Your task to perform on an android device: turn on priority inbox in the gmail app Image 0: 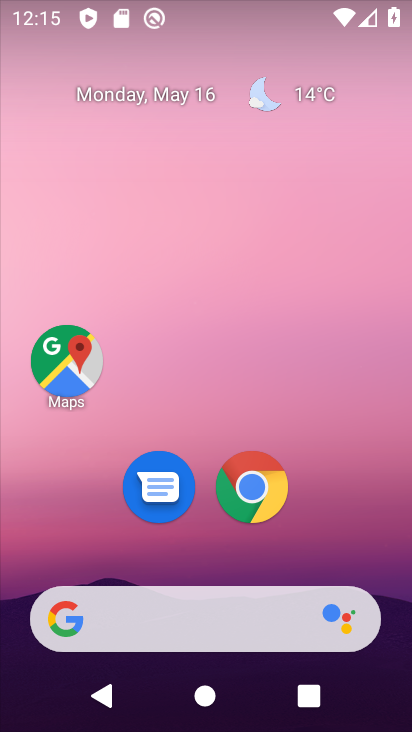
Step 0: press home button
Your task to perform on an android device: turn on priority inbox in the gmail app Image 1: 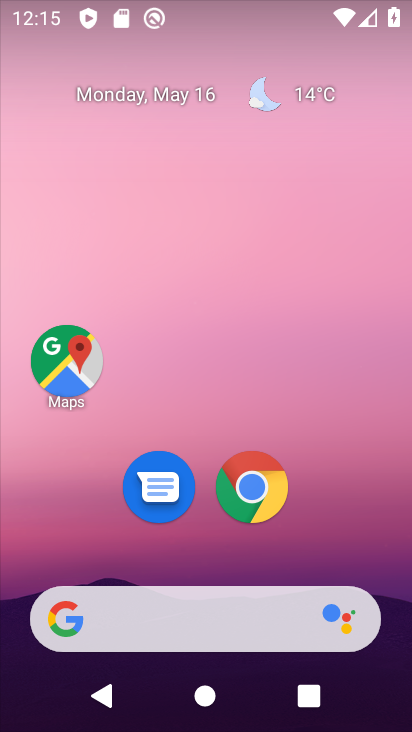
Step 1: drag from (162, 627) to (236, 120)
Your task to perform on an android device: turn on priority inbox in the gmail app Image 2: 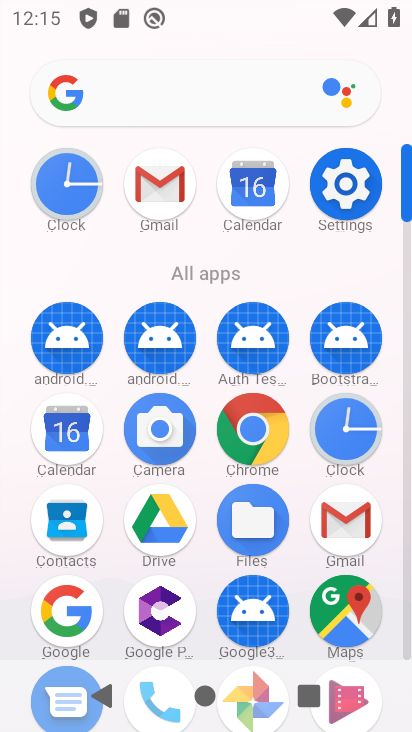
Step 2: click (170, 191)
Your task to perform on an android device: turn on priority inbox in the gmail app Image 3: 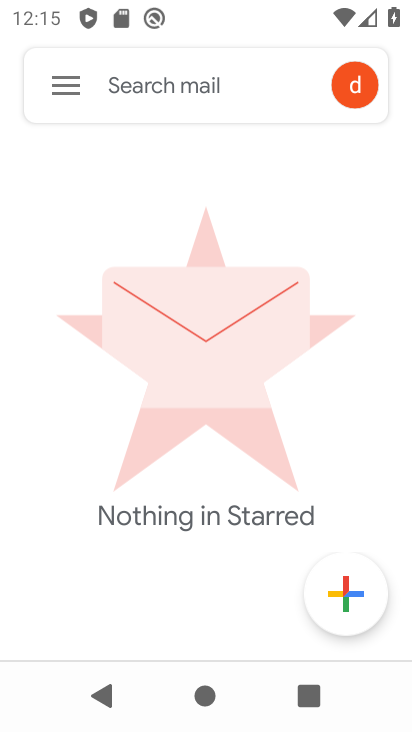
Step 3: click (71, 89)
Your task to perform on an android device: turn on priority inbox in the gmail app Image 4: 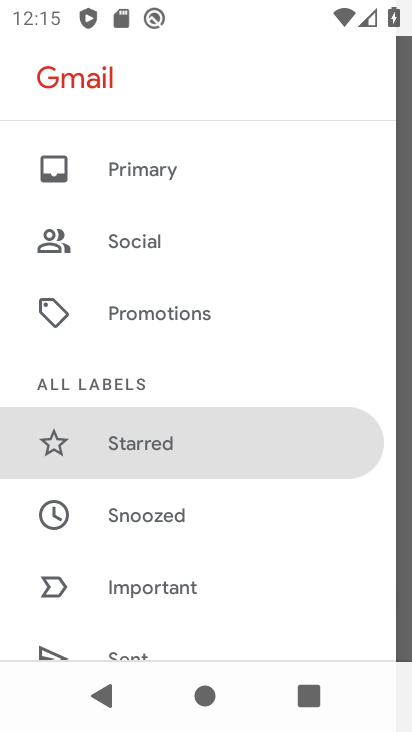
Step 4: drag from (246, 626) to (329, 38)
Your task to perform on an android device: turn on priority inbox in the gmail app Image 5: 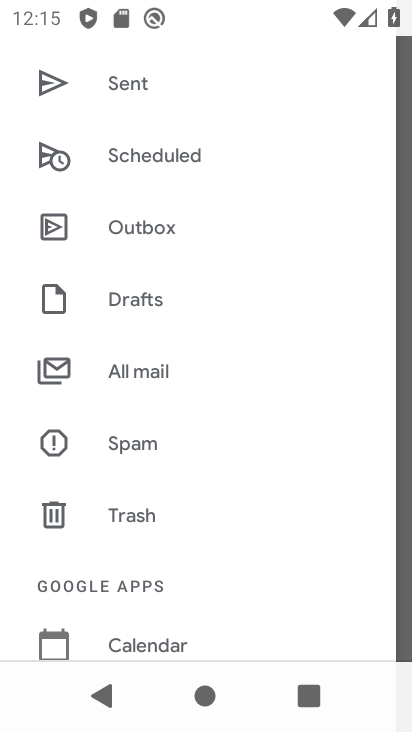
Step 5: drag from (177, 609) to (279, 118)
Your task to perform on an android device: turn on priority inbox in the gmail app Image 6: 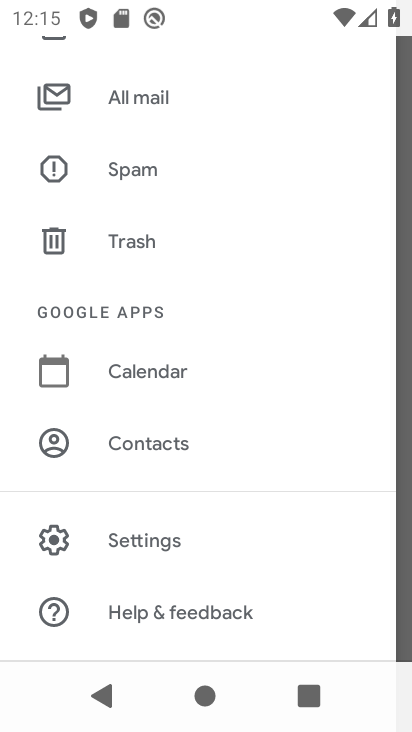
Step 6: click (130, 539)
Your task to perform on an android device: turn on priority inbox in the gmail app Image 7: 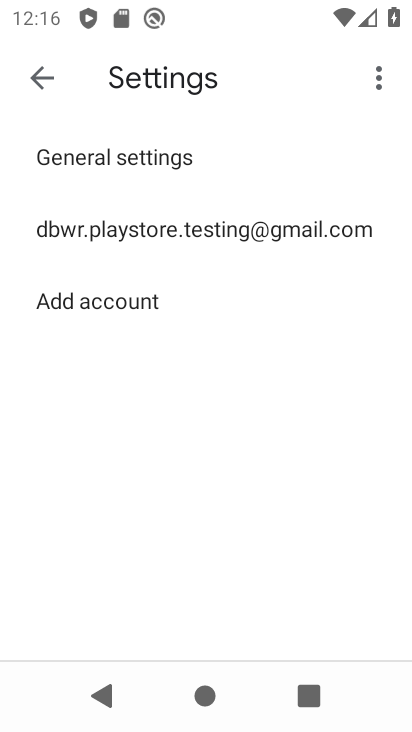
Step 7: click (284, 230)
Your task to perform on an android device: turn on priority inbox in the gmail app Image 8: 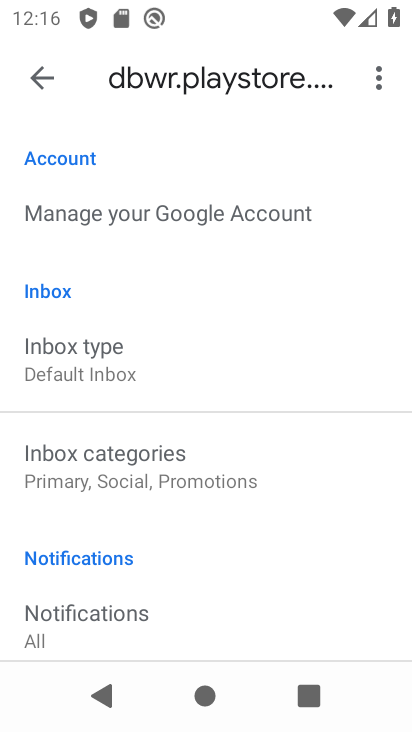
Step 8: click (102, 359)
Your task to perform on an android device: turn on priority inbox in the gmail app Image 9: 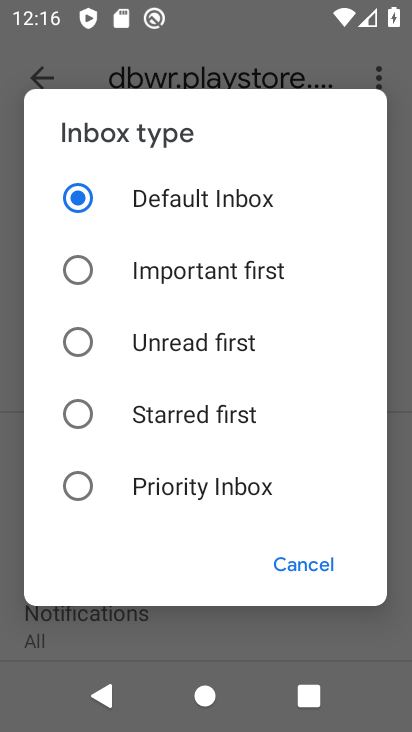
Step 9: click (79, 488)
Your task to perform on an android device: turn on priority inbox in the gmail app Image 10: 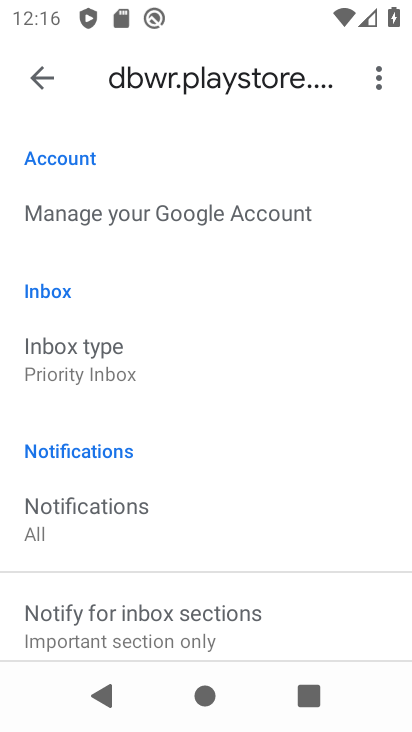
Step 10: task complete